Your task to perform on an android device: toggle pop-ups in chrome Image 0: 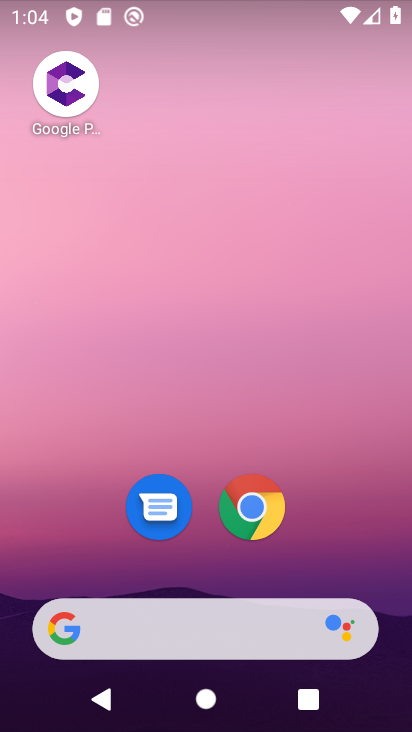
Step 0: click (249, 492)
Your task to perform on an android device: toggle pop-ups in chrome Image 1: 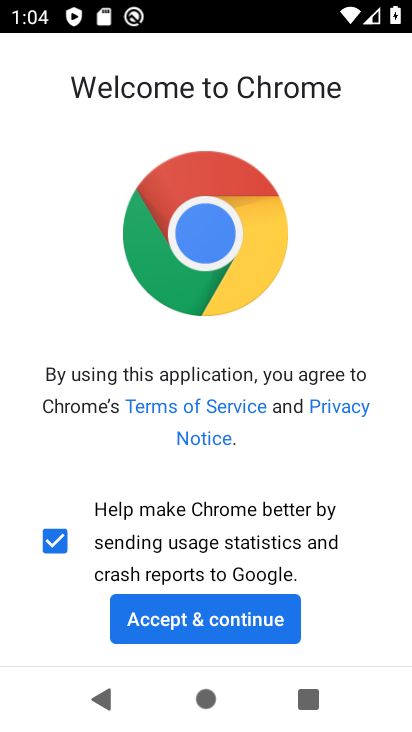
Step 1: click (166, 613)
Your task to perform on an android device: toggle pop-ups in chrome Image 2: 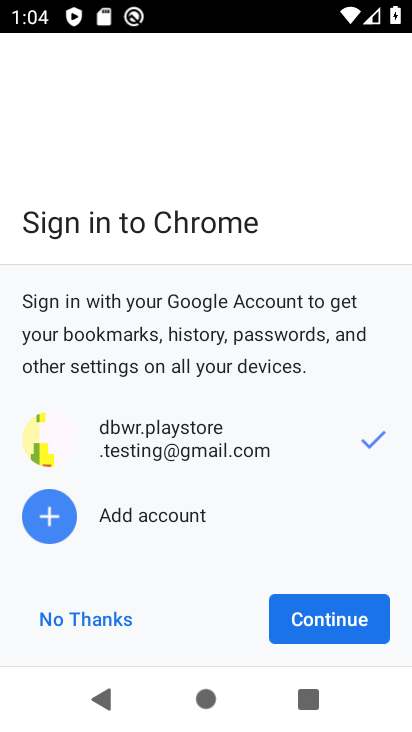
Step 2: click (348, 637)
Your task to perform on an android device: toggle pop-ups in chrome Image 3: 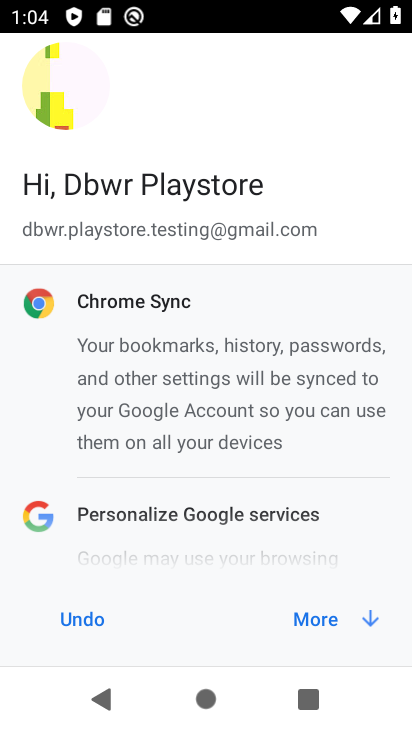
Step 3: click (343, 613)
Your task to perform on an android device: toggle pop-ups in chrome Image 4: 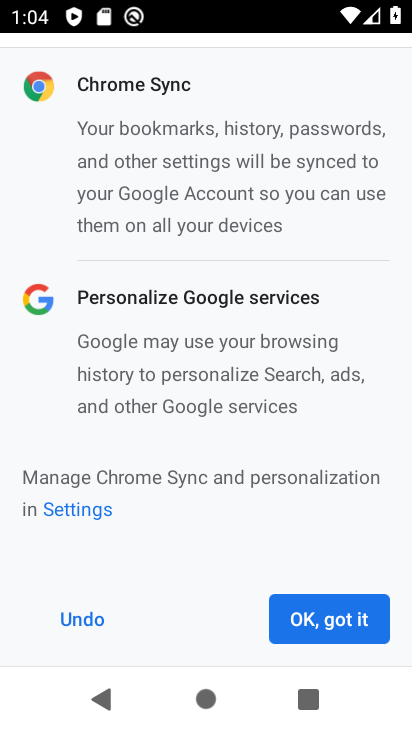
Step 4: click (343, 613)
Your task to perform on an android device: toggle pop-ups in chrome Image 5: 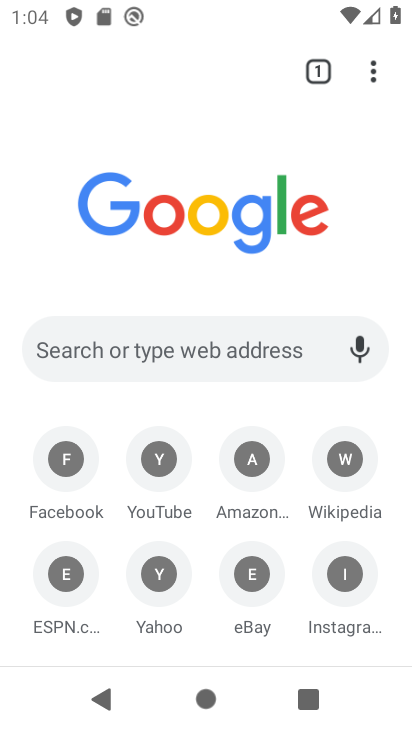
Step 5: click (377, 74)
Your task to perform on an android device: toggle pop-ups in chrome Image 6: 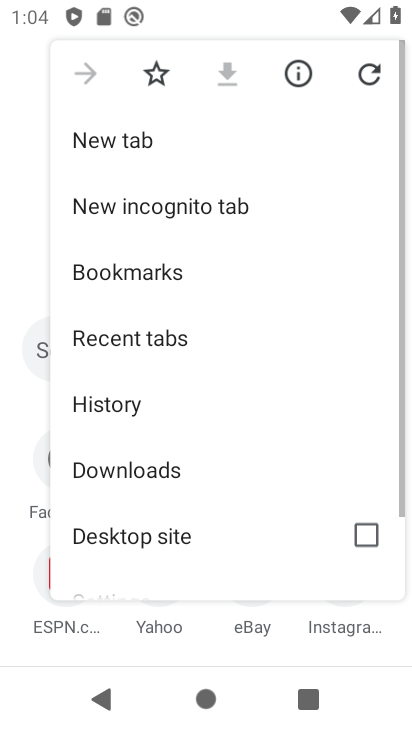
Step 6: drag from (224, 484) to (289, 117)
Your task to perform on an android device: toggle pop-ups in chrome Image 7: 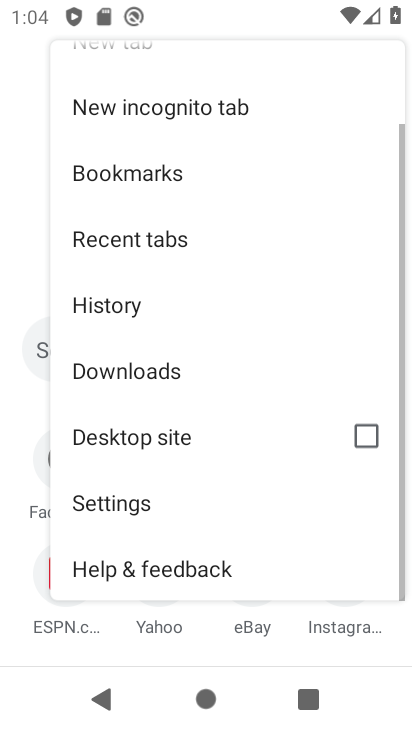
Step 7: click (149, 494)
Your task to perform on an android device: toggle pop-ups in chrome Image 8: 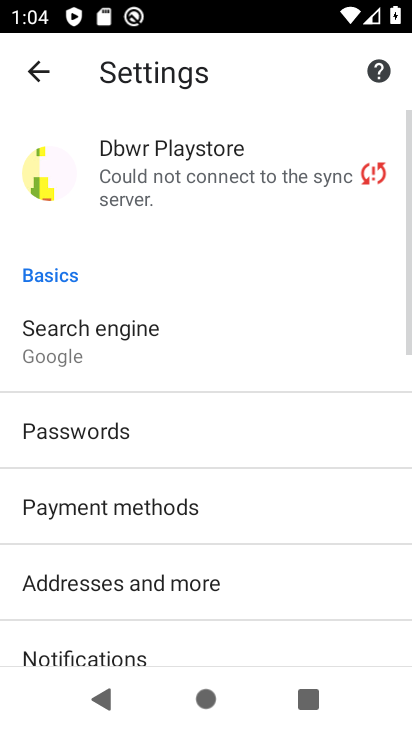
Step 8: drag from (199, 511) to (251, 149)
Your task to perform on an android device: toggle pop-ups in chrome Image 9: 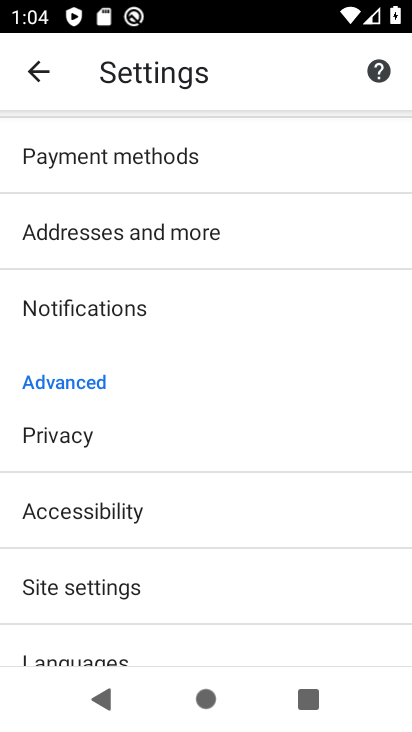
Step 9: click (144, 586)
Your task to perform on an android device: toggle pop-ups in chrome Image 10: 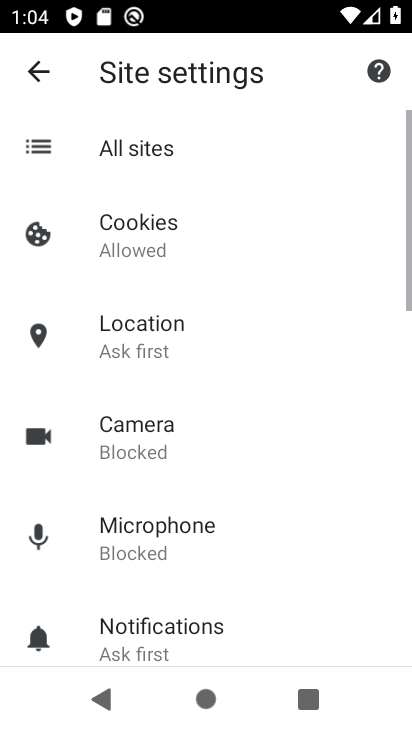
Step 10: drag from (154, 531) to (194, 101)
Your task to perform on an android device: toggle pop-ups in chrome Image 11: 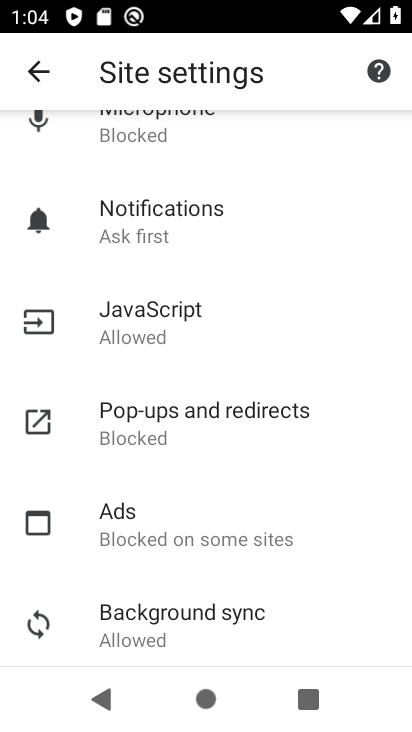
Step 11: click (143, 410)
Your task to perform on an android device: toggle pop-ups in chrome Image 12: 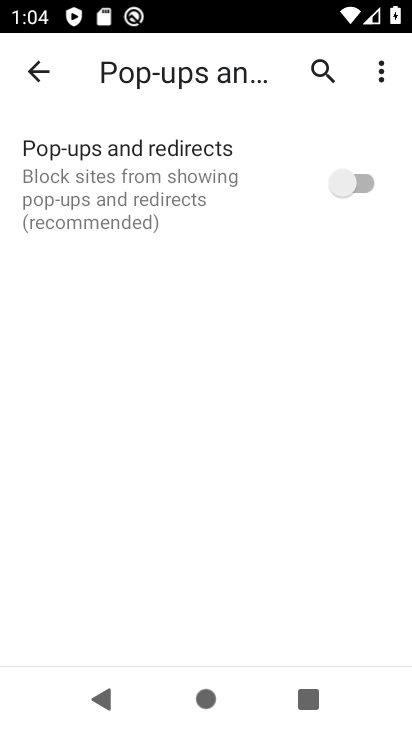
Step 12: click (356, 178)
Your task to perform on an android device: toggle pop-ups in chrome Image 13: 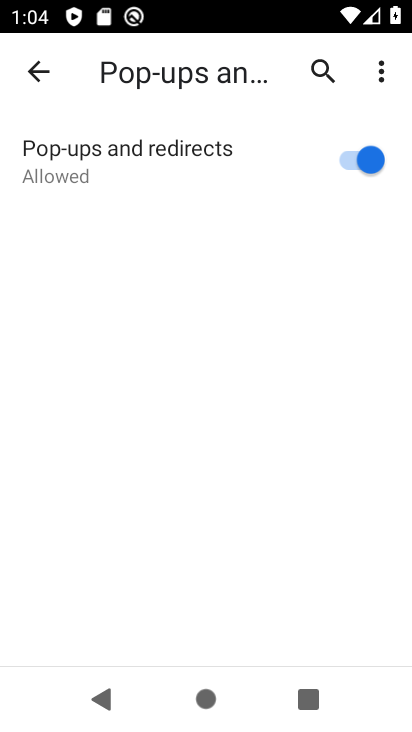
Step 13: task complete